Your task to perform on an android device: turn off translation in the chrome app Image 0: 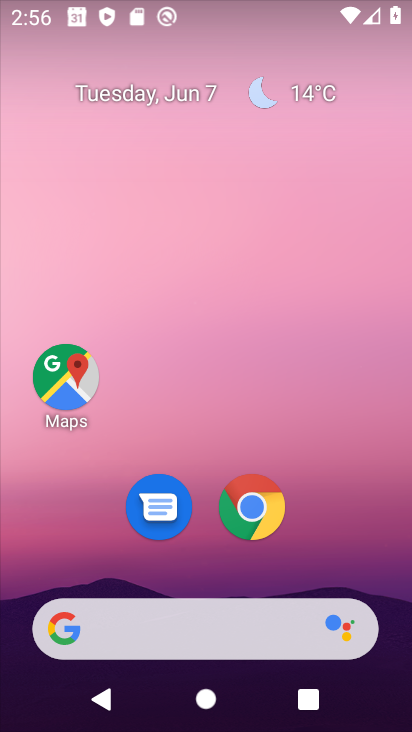
Step 0: drag from (328, 513) to (326, 117)
Your task to perform on an android device: turn off translation in the chrome app Image 1: 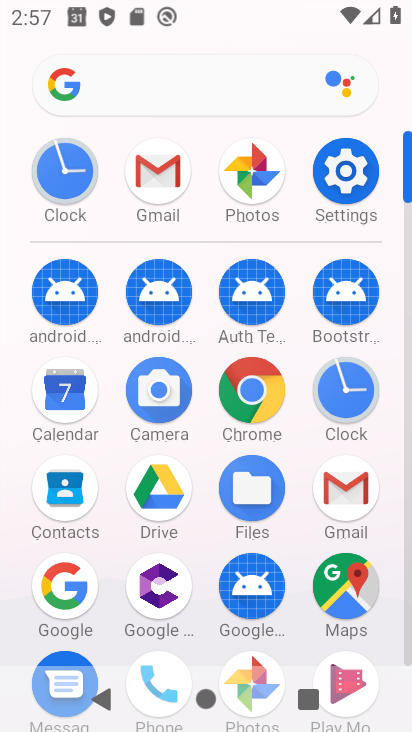
Step 1: click (258, 377)
Your task to perform on an android device: turn off translation in the chrome app Image 2: 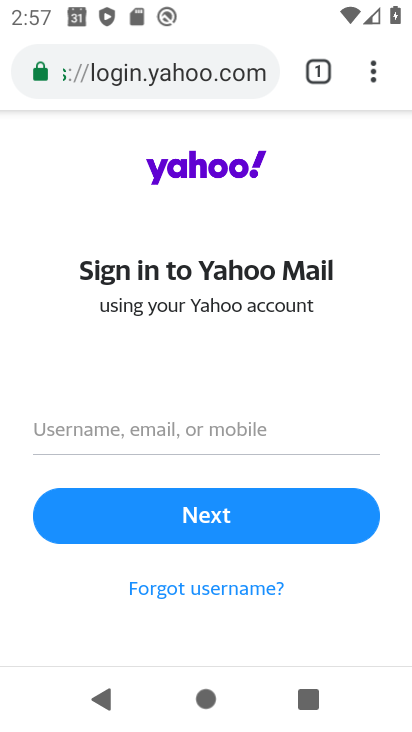
Step 2: drag from (374, 64) to (245, 512)
Your task to perform on an android device: turn off translation in the chrome app Image 3: 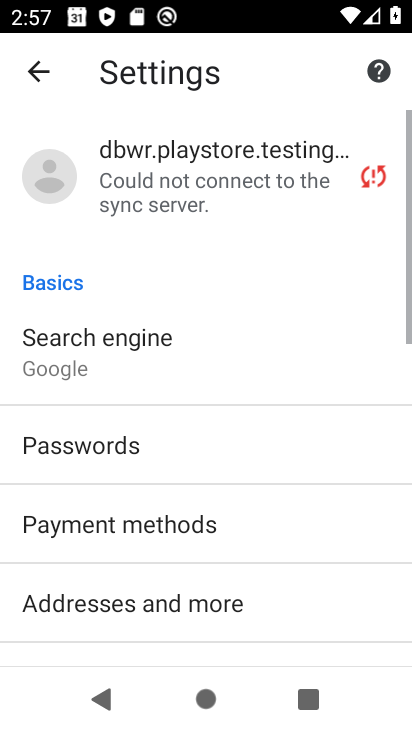
Step 3: drag from (261, 555) to (325, 79)
Your task to perform on an android device: turn off translation in the chrome app Image 4: 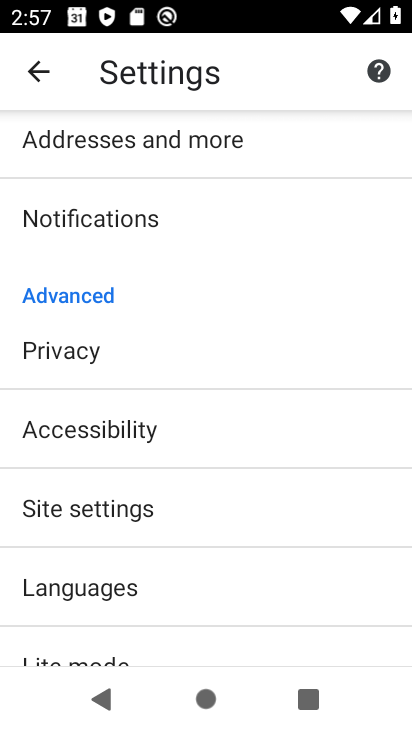
Step 4: drag from (202, 585) to (253, 191)
Your task to perform on an android device: turn off translation in the chrome app Image 5: 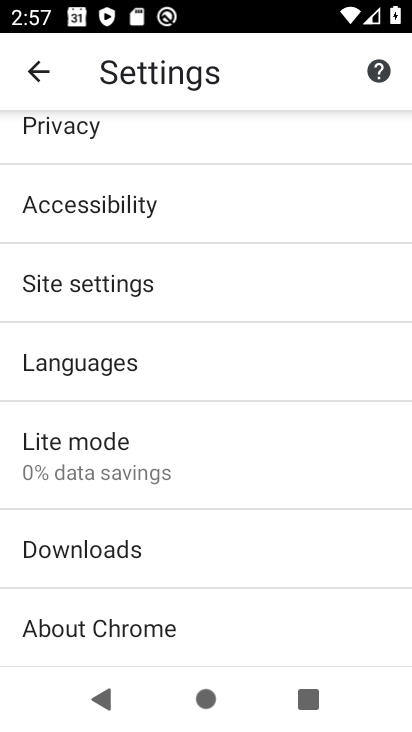
Step 5: click (94, 357)
Your task to perform on an android device: turn off translation in the chrome app Image 6: 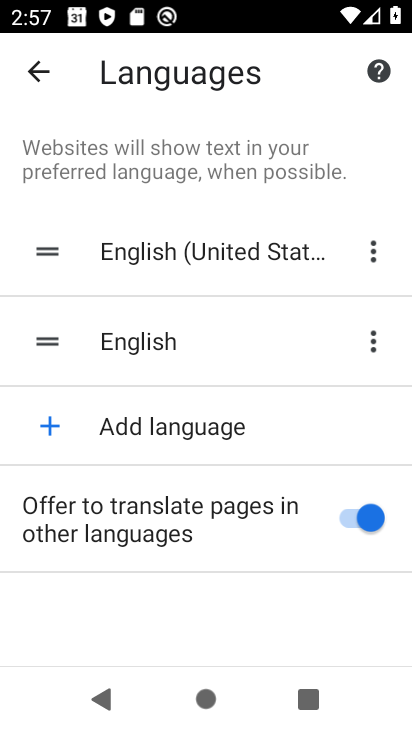
Step 6: click (366, 503)
Your task to perform on an android device: turn off translation in the chrome app Image 7: 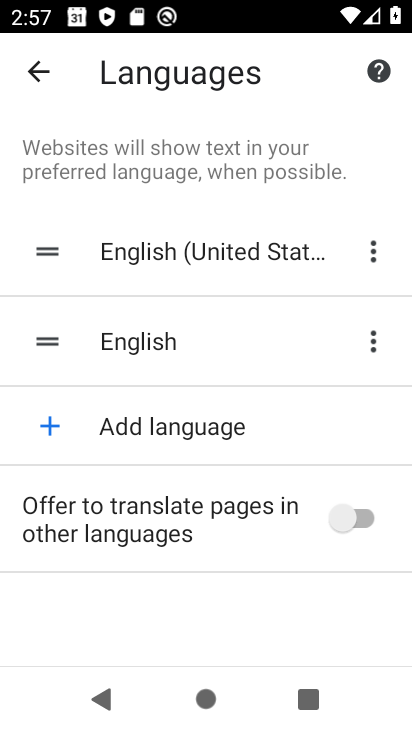
Step 7: task complete